Your task to perform on an android device: see sites visited before in the chrome app Image 0: 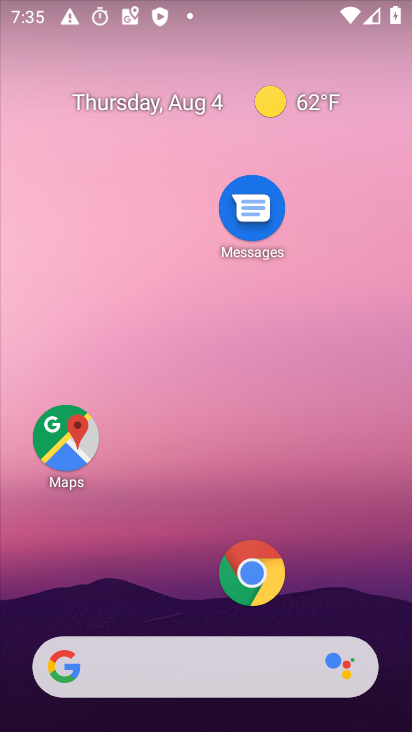
Step 0: press home button
Your task to perform on an android device: see sites visited before in the chrome app Image 1: 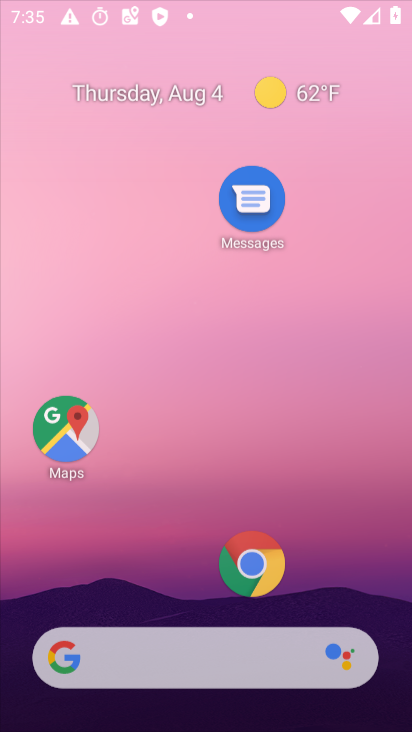
Step 1: drag from (161, 612) to (188, 40)
Your task to perform on an android device: see sites visited before in the chrome app Image 2: 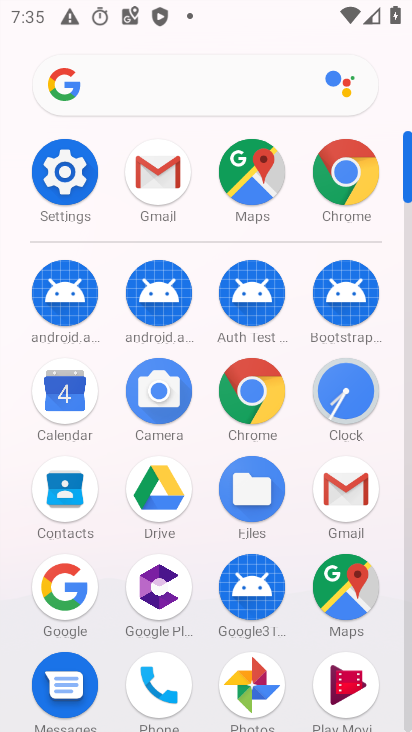
Step 2: click (356, 168)
Your task to perform on an android device: see sites visited before in the chrome app Image 3: 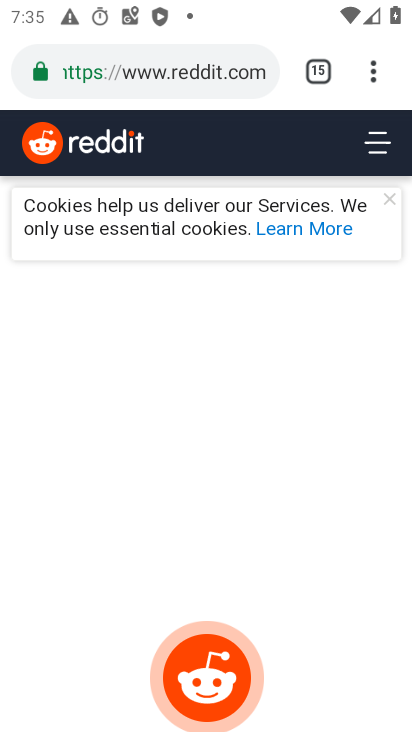
Step 3: task complete